Your task to perform on an android device: change notifications settings Image 0: 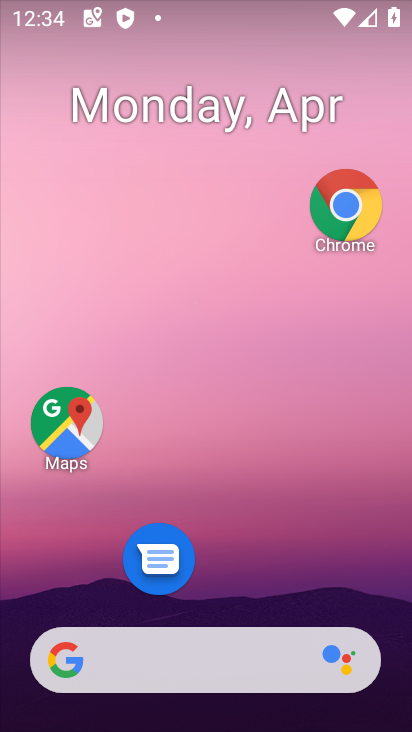
Step 0: drag from (241, 565) to (217, 117)
Your task to perform on an android device: change notifications settings Image 1: 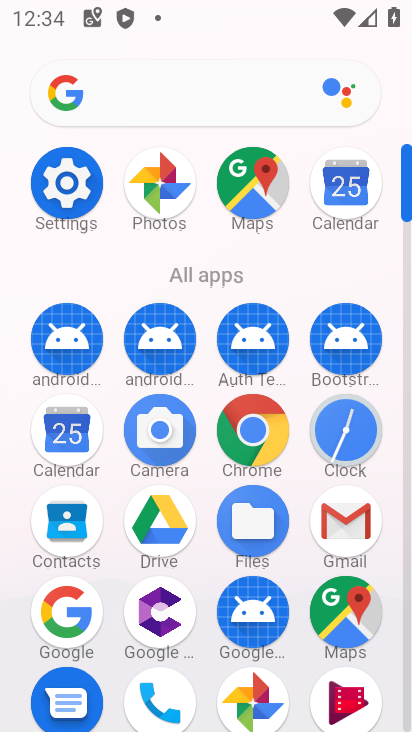
Step 1: click (66, 186)
Your task to perform on an android device: change notifications settings Image 2: 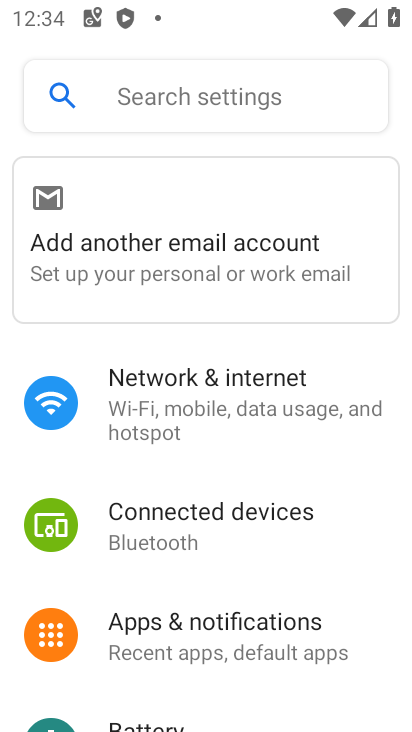
Step 2: click (212, 646)
Your task to perform on an android device: change notifications settings Image 3: 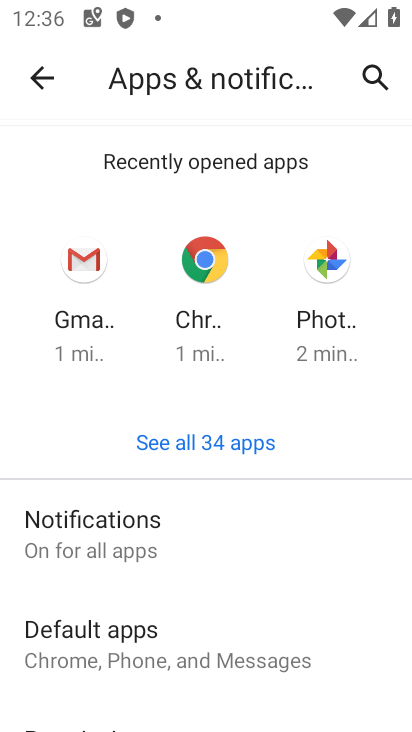
Step 3: click (91, 533)
Your task to perform on an android device: change notifications settings Image 4: 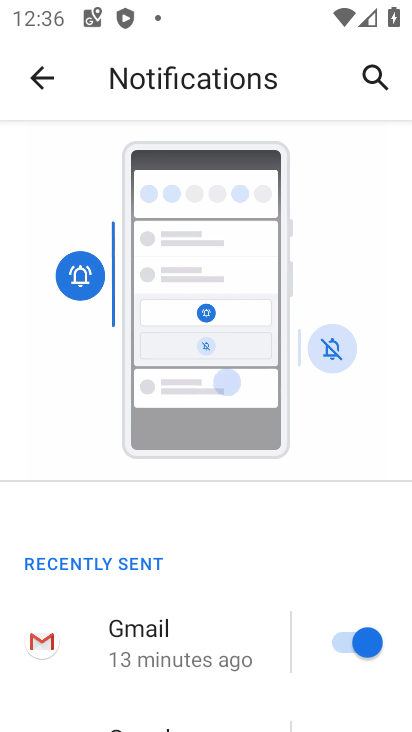
Step 4: task complete